Your task to perform on an android device: See recent photos Image 0: 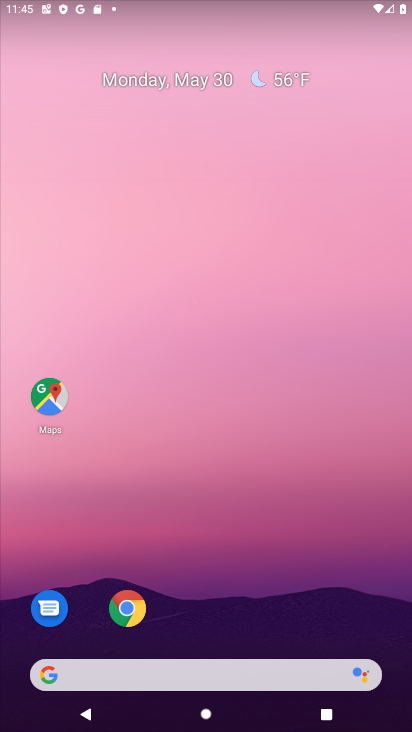
Step 0: drag from (185, 611) to (225, 74)
Your task to perform on an android device: See recent photos Image 1: 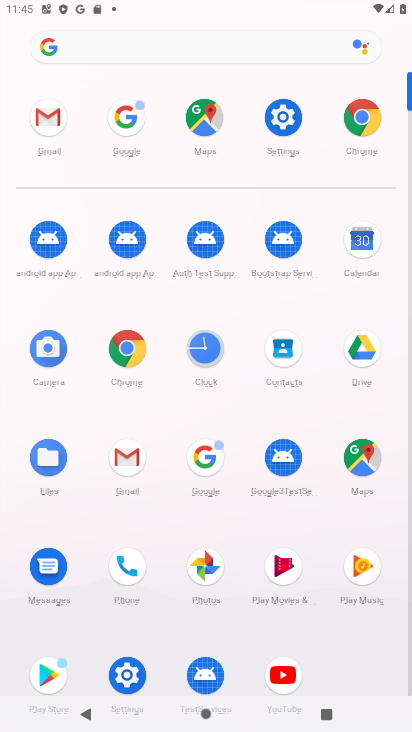
Step 1: click (205, 560)
Your task to perform on an android device: See recent photos Image 2: 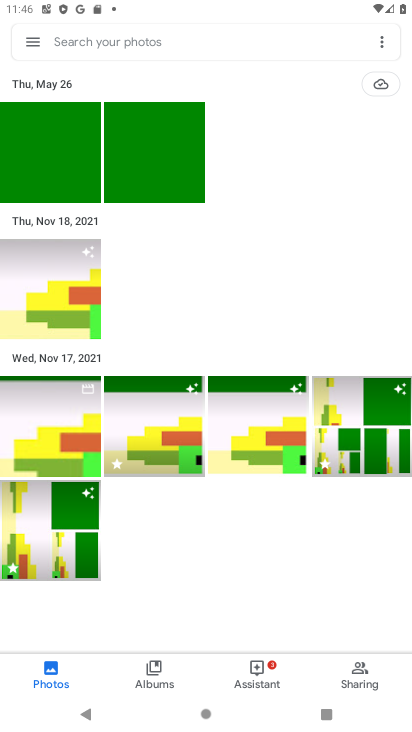
Step 2: task complete